Your task to perform on an android device: delete location history Image 0: 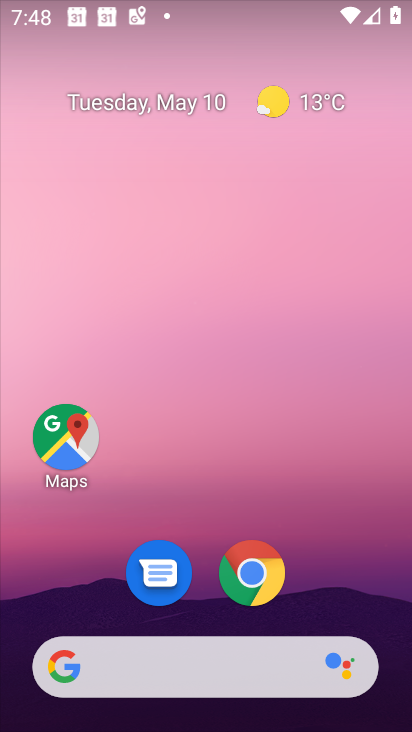
Step 0: click (61, 441)
Your task to perform on an android device: delete location history Image 1: 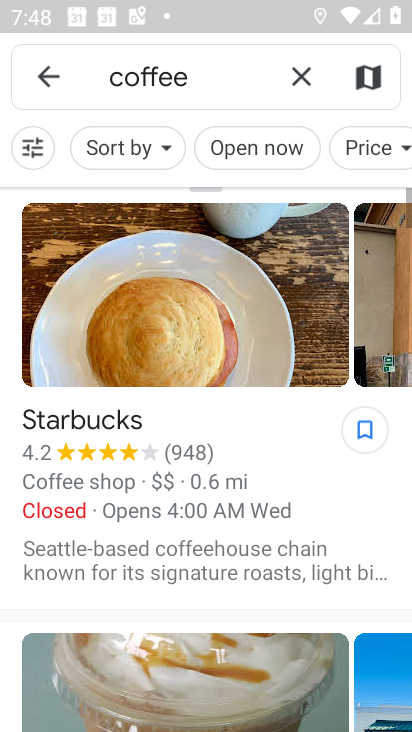
Step 1: click (303, 79)
Your task to perform on an android device: delete location history Image 2: 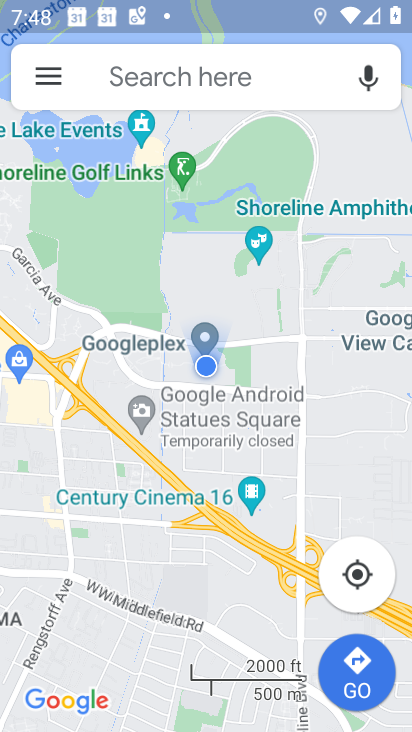
Step 2: click (50, 81)
Your task to perform on an android device: delete location history Image 3: 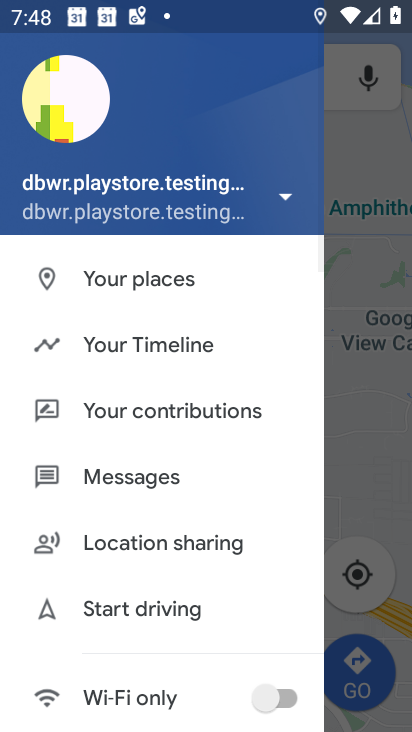
Step 3: click (122, 349)
Your task to perform on an android device: delete location history Image 4: 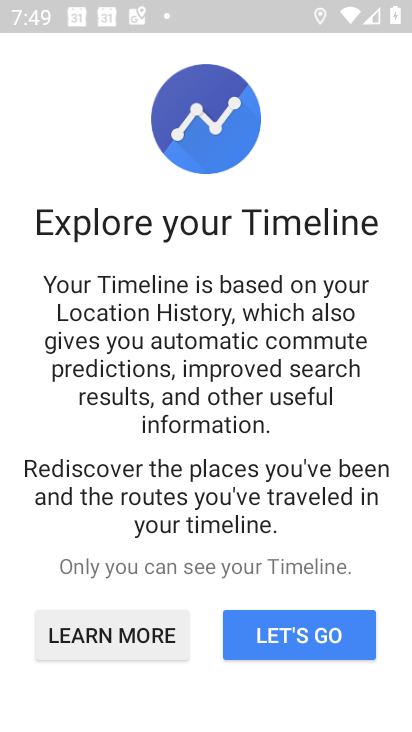
Step 4: click (308, 646)
Your task to perform on an android device: delete location history Image 5: 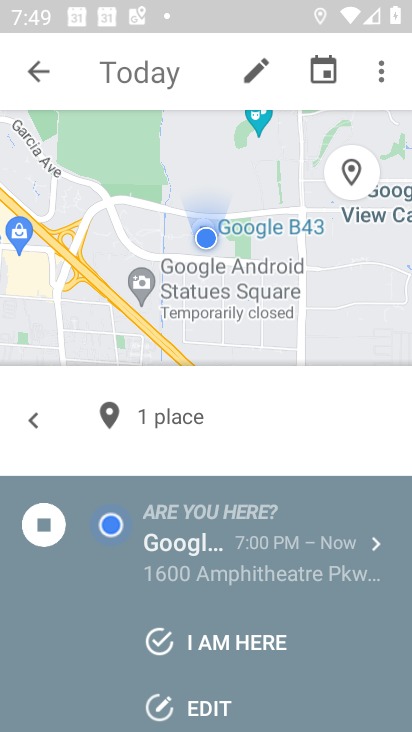
Step 5: click (376, 75)
Your task to perform on an android device: delete location history Image 6: 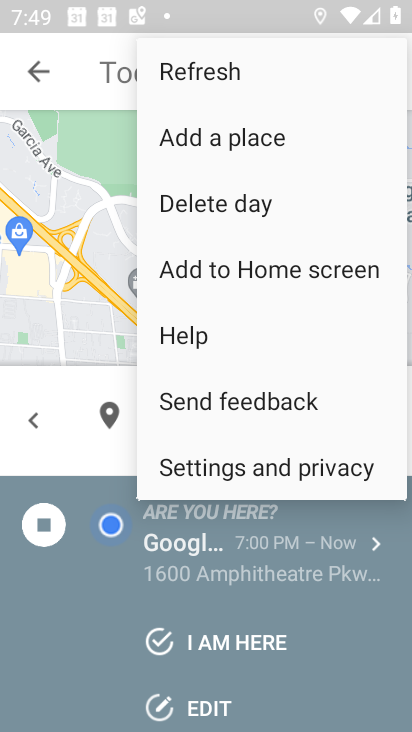
Step 6: click (188, 471)
Your task to perform on an android device: delete location history Image 7: 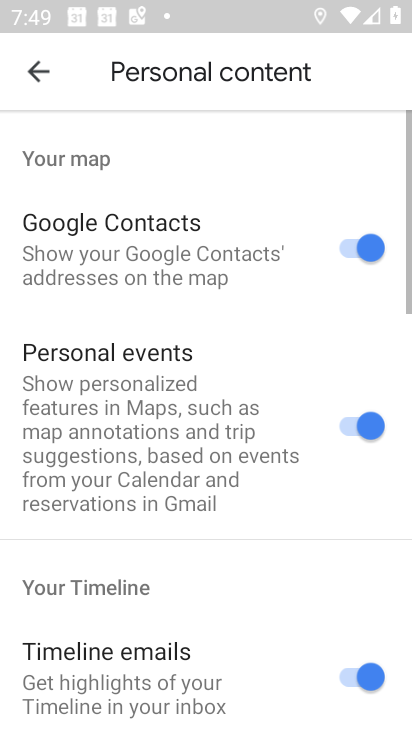
Step 7: drag from (180, 523) to (183, 67)
Your task to perform on an android device: delete location history Image 8: 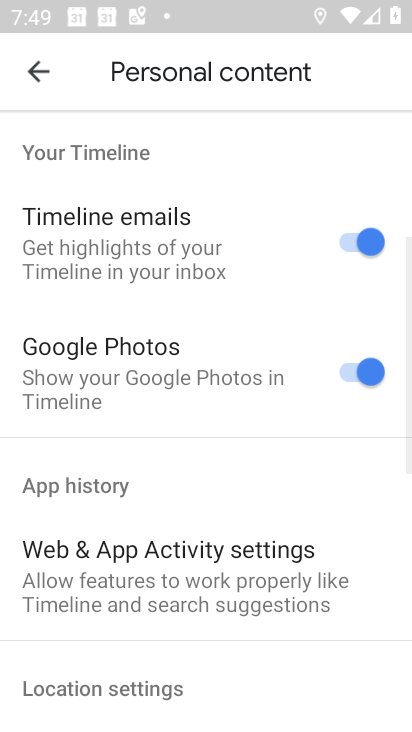
Step 8: drag from (123, 473) to (108, 101)
Your task to perform on an android device: delete location history Image 9: 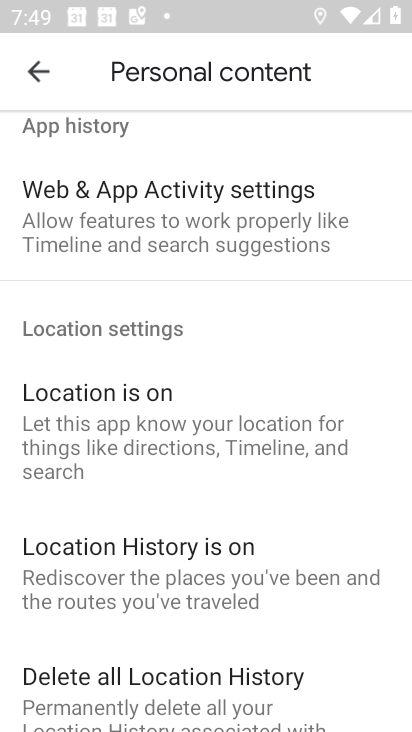
Step 9: drag from (129, 600) to (116, 363)
Your task to perform on an android device: delete location history Image 10: 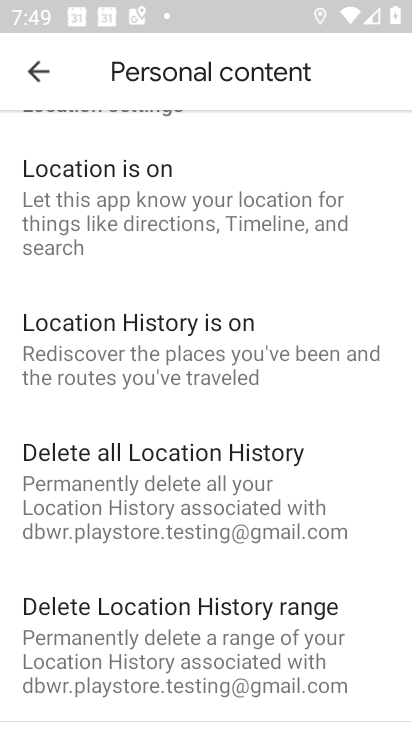
Step 10: click (113, 503)
Your task to perform on an android device: delete location history Image 11: 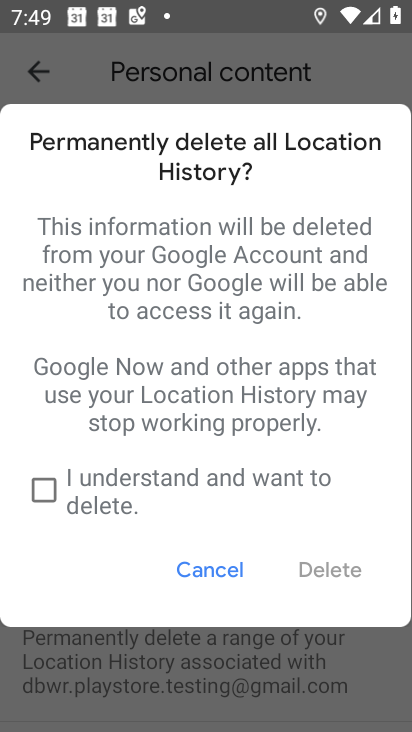
Step 11: click (48, 488)
Your task to perform on an android device: delete location history Image 12: 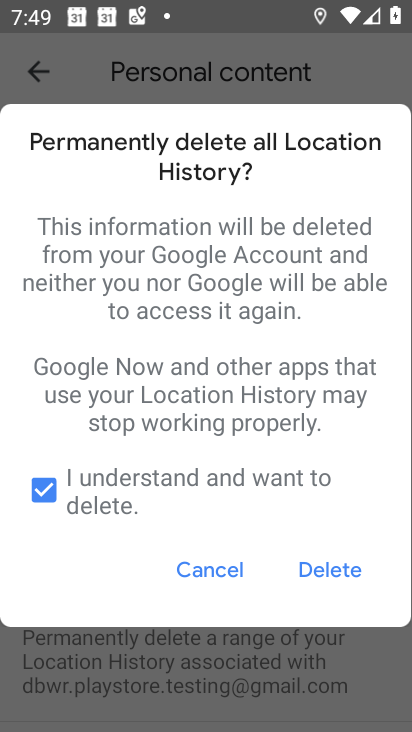
Step 12: click (310, 573)
Your task to perform on an android device: delete location history Image 13: 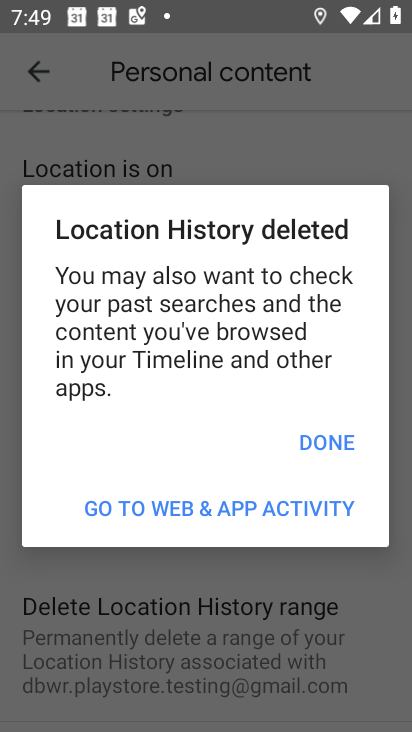
Step 13: click (311, 446)
Your task to perform on an android device: delete location history Image 14: 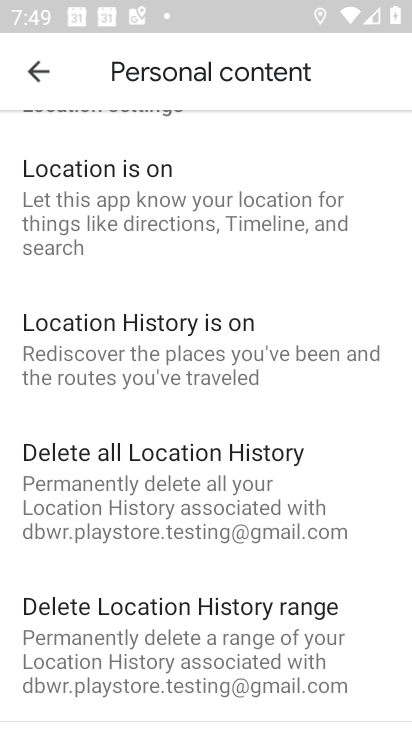
Step 14: task complete